Your task to perform on an android device: turn off location Image 0: 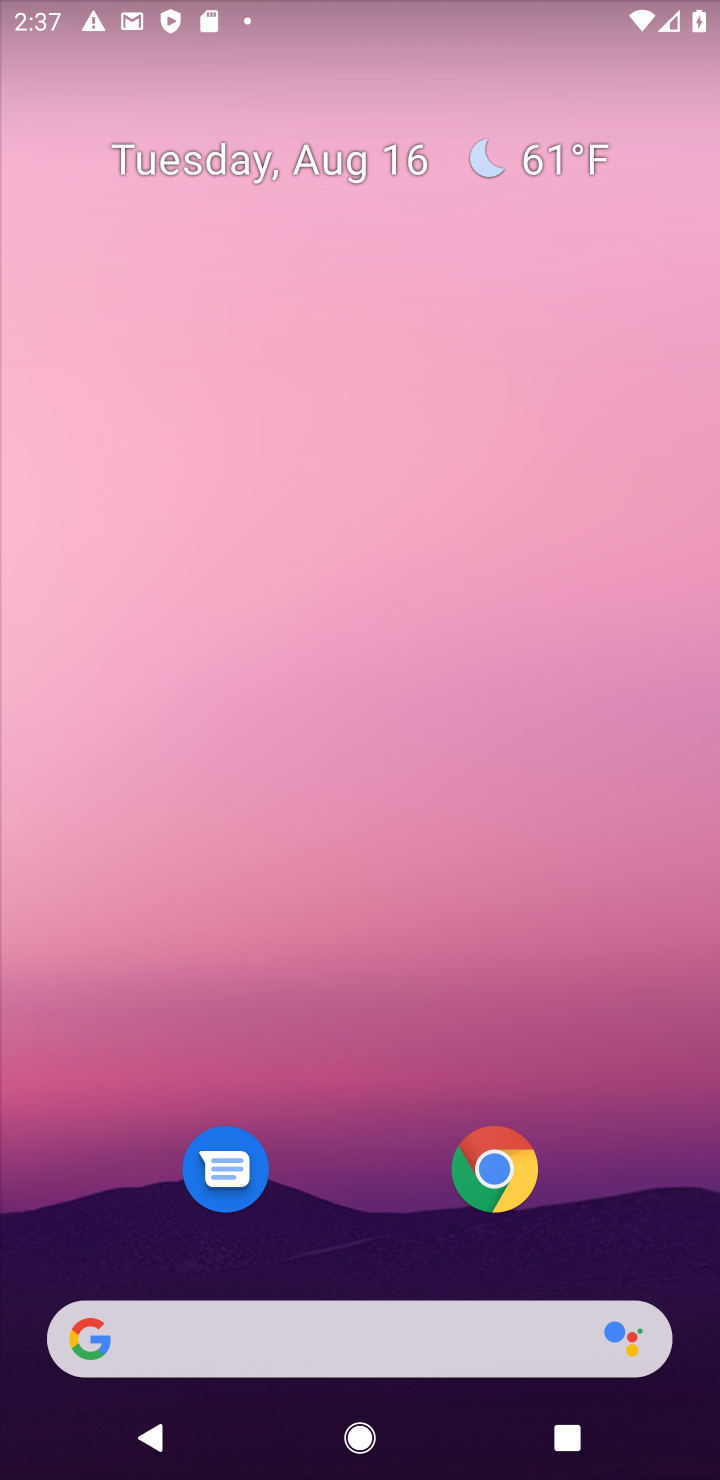
Step 0: drag from (342, 1340) to (647, 83)
Your task to perform on an android device: turn off location Image 1: 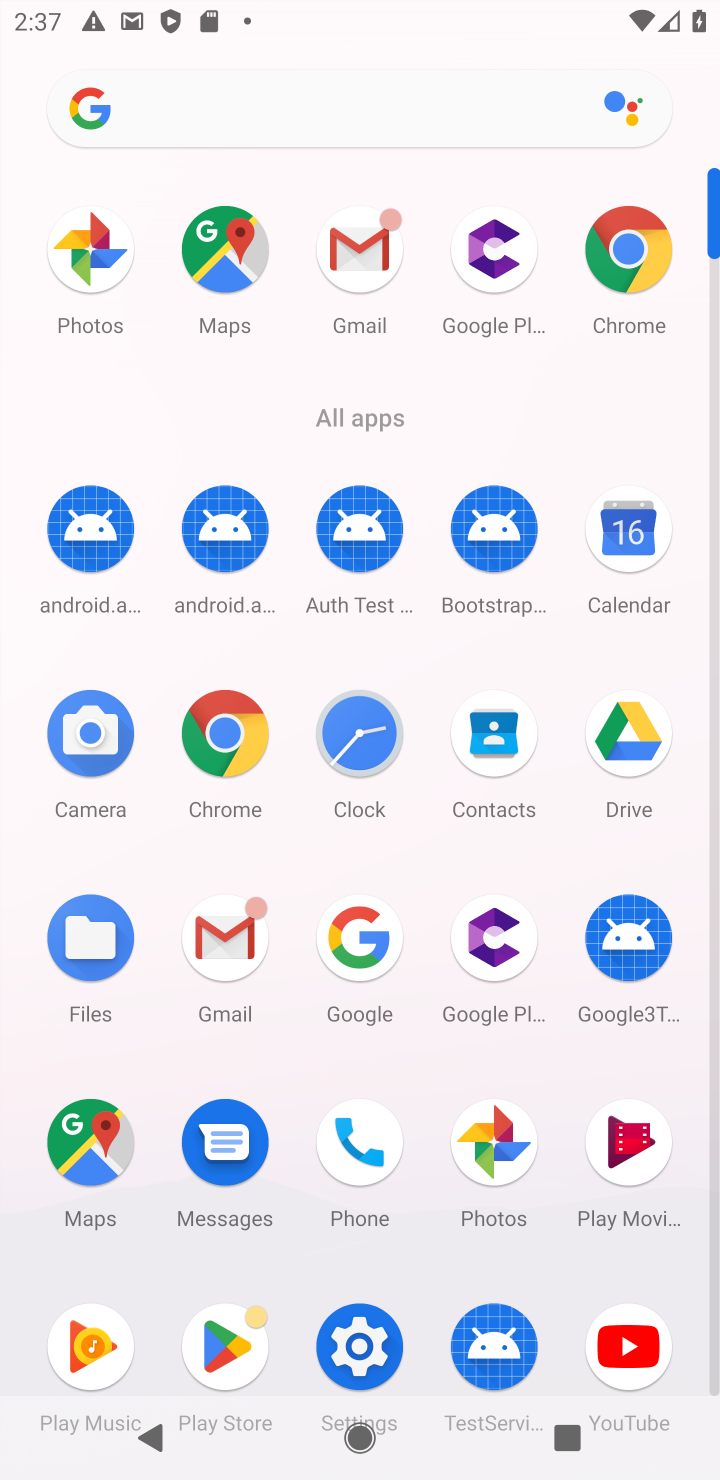
Step 1: click (352, 1334)
Your task to perform on an android device: turn off location Image 2: 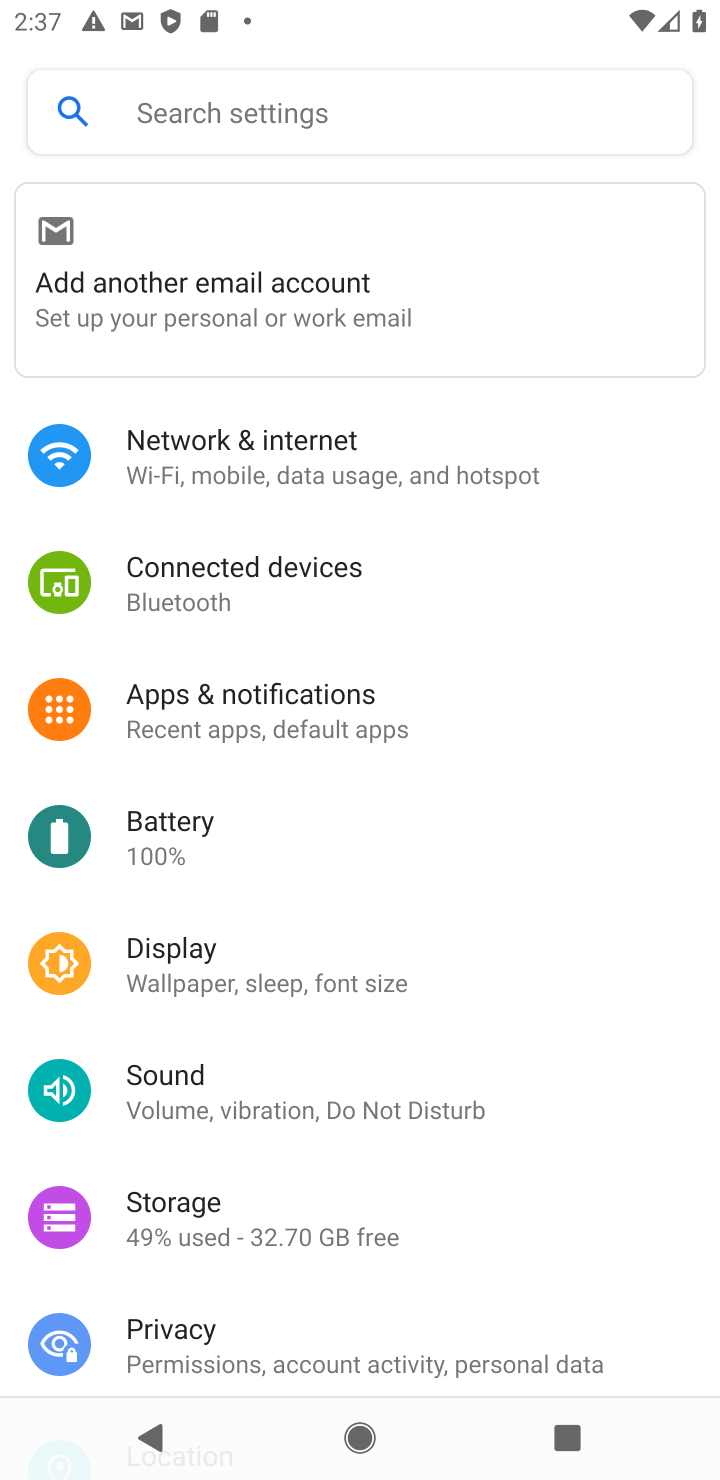
Step 2: drag from (442, 1065) to (564, 126)
Your task to perform on an android device: turn off location Image 3: 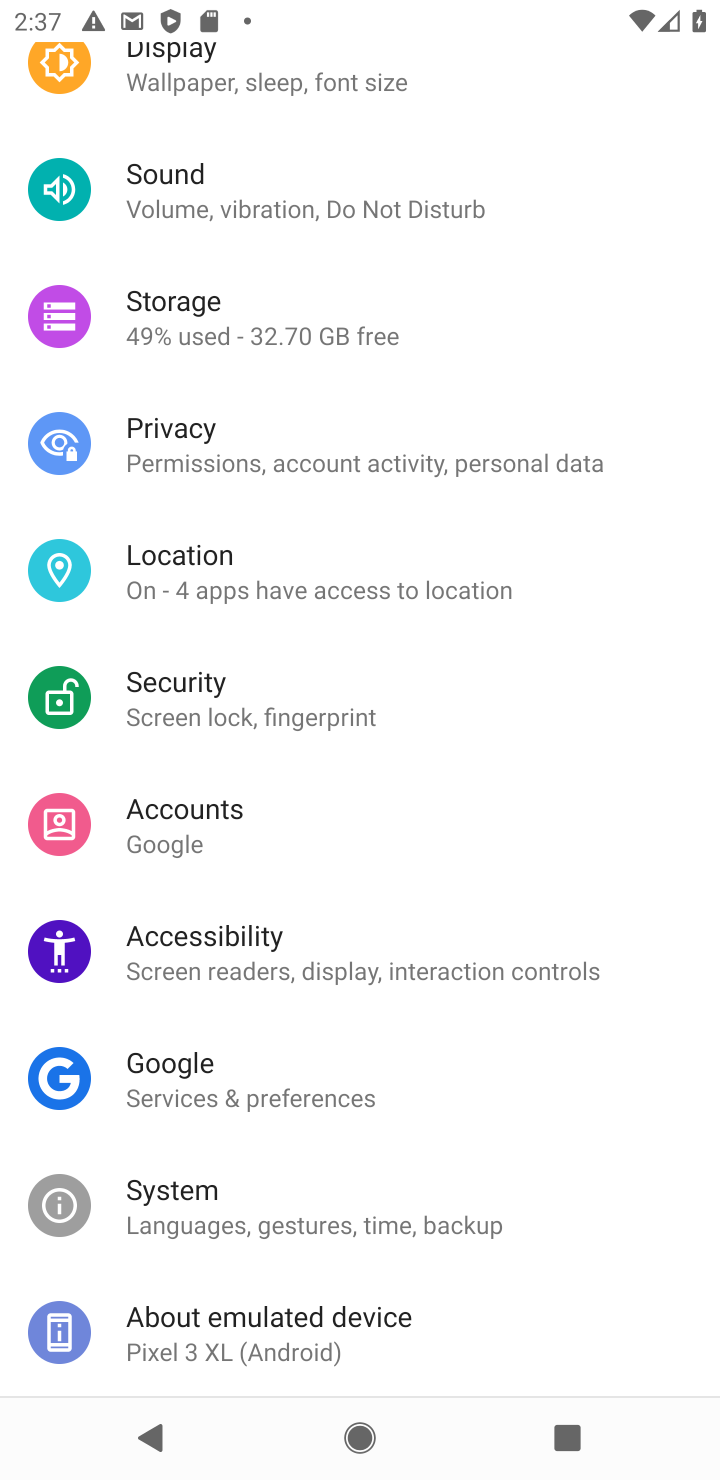
Step 3: click (158, 583)
Your task to perform on an android device: turn off location Image 4: 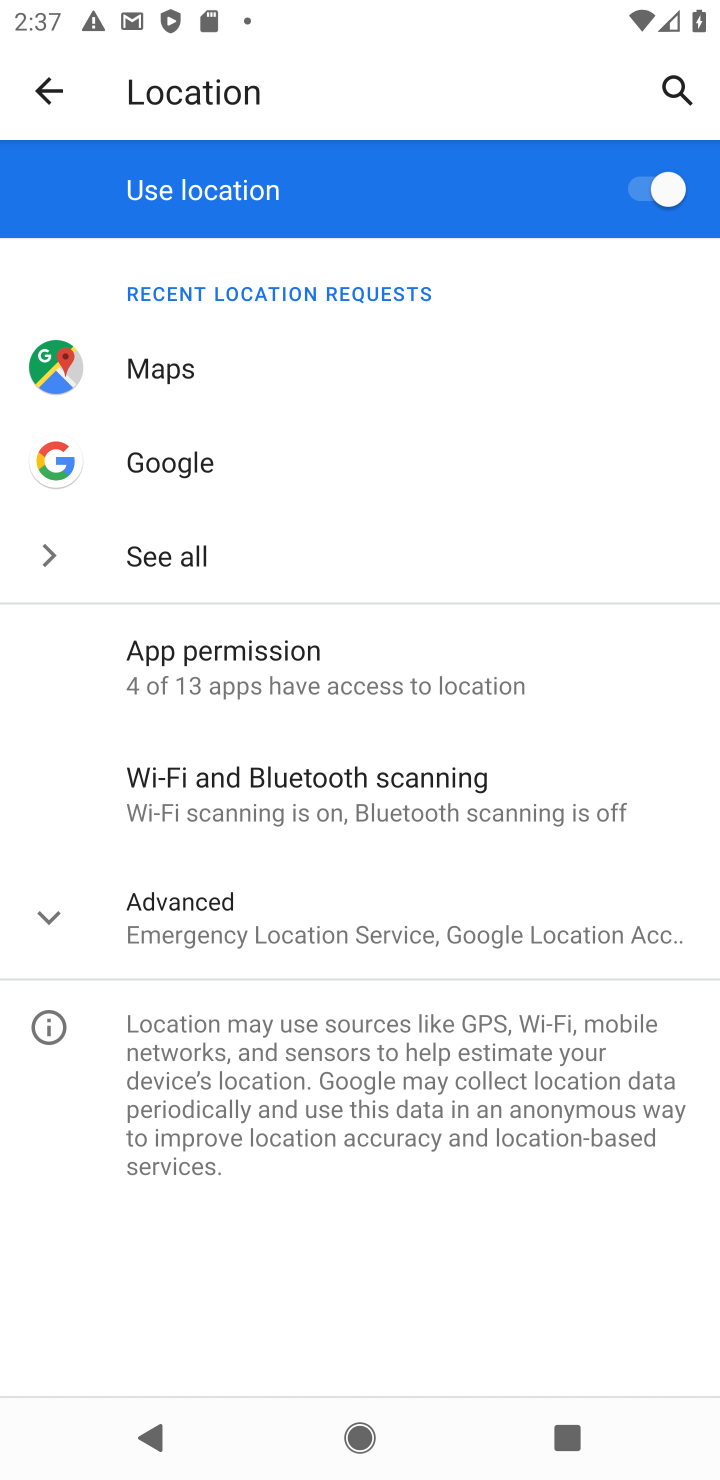
Step 4: click (645, 185)
Your task to perform on an android device: turn off location Image 5: 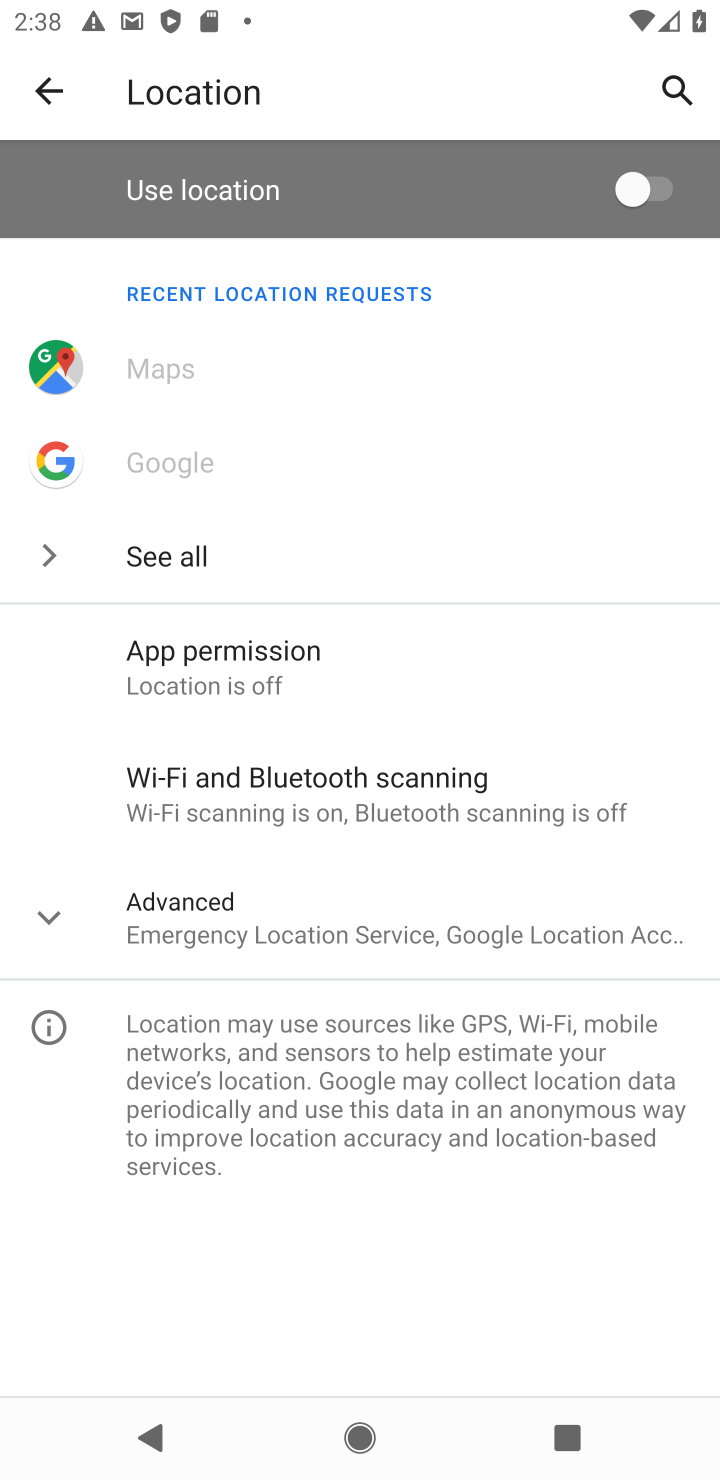
Step 5: task complete